Your task to perform on an android device: move a message to another label in the gmail app Image 0: 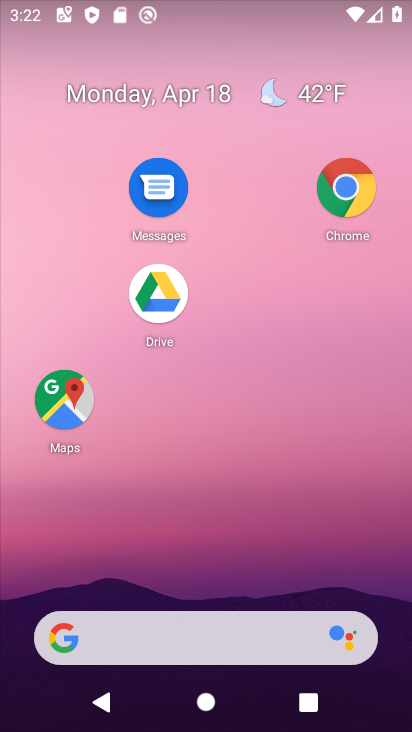
Step 0: drag from (210, 540) to (283, 112)
Your task to perform on an android device: move a message to another label in the gmail app Image 1: 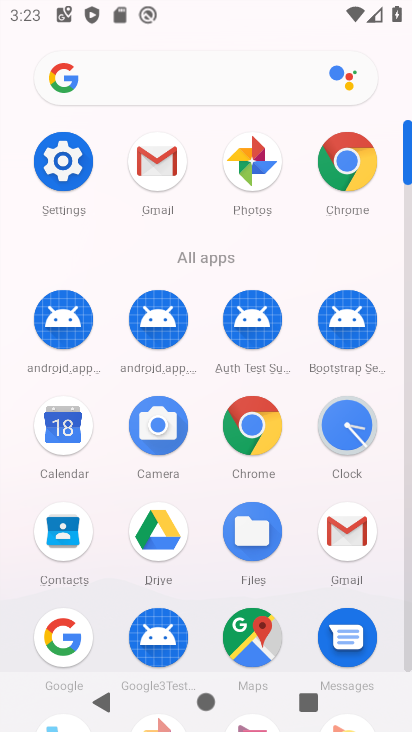
Step 1: drag from (294, 513) to (294, 405)
Your task to perform on an android device: move a message to another label in the gmail app Image 2: 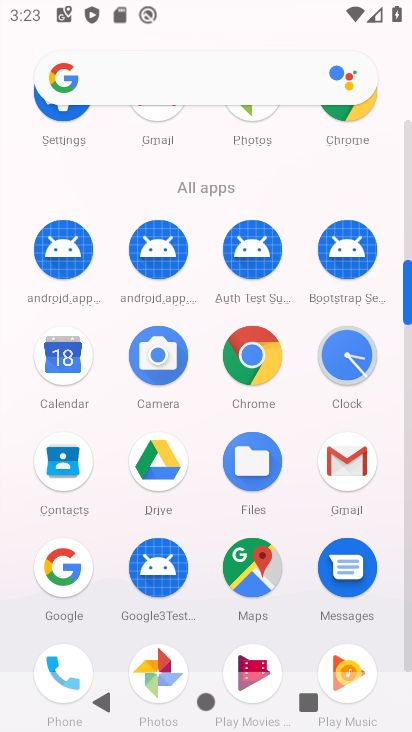
Step 2: click (349, 461)
Your task to perform on an android device: move a message to another label in the gmail app Image 3: 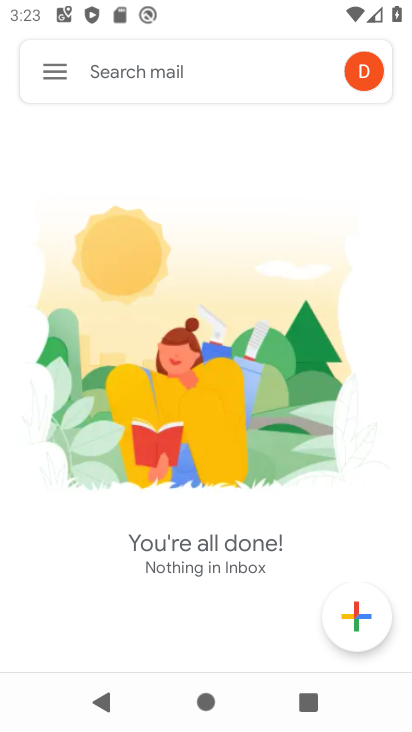
Step 3: click (47, 69)
Your task to perform on an android device: move a message to another label in the gmail app Image 4: 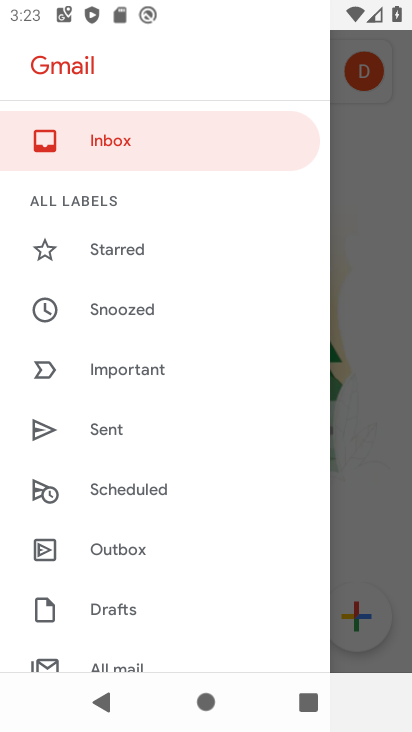
Step 4: drag from (164, 492) to (175, 371)
Your task to perform on an android device: move a message to another label in the gmail app Image 5: 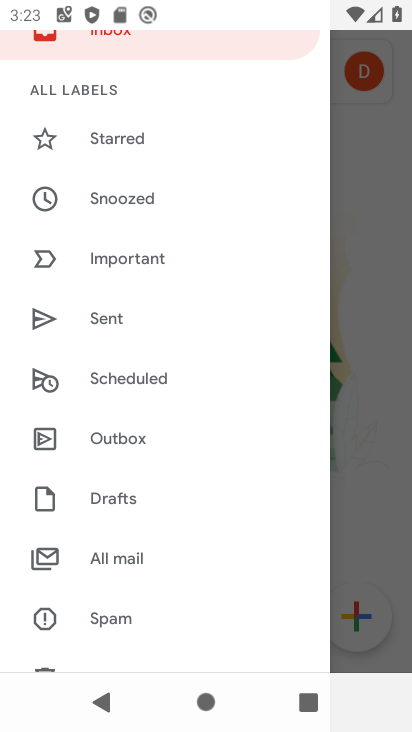
Step 5: drag from (178, 472) to (170, 402)
Your task to perform on an android device: move a message to another label in the gmail app Image 6: 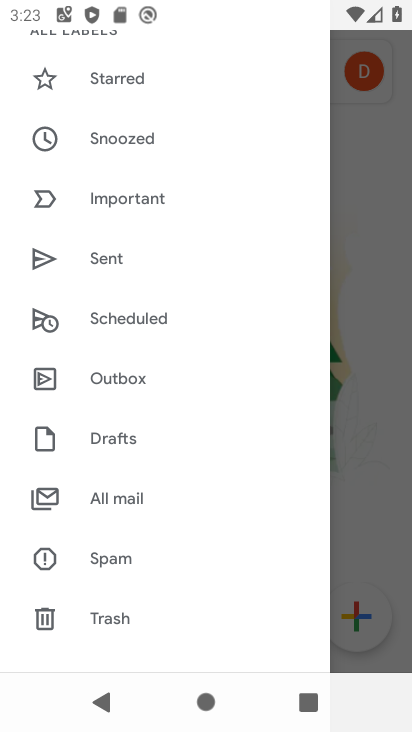
Step 6: click (112, 494)
Your task to perform on an android device: move a message to another label in the gmail app Image 7: 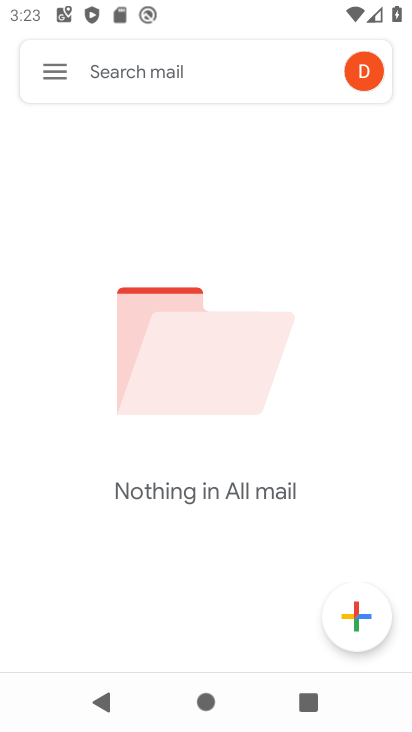
Step 7: click (68, 74)
Your task to perform on an android device: move a message to another label in the gmail app Image 8: 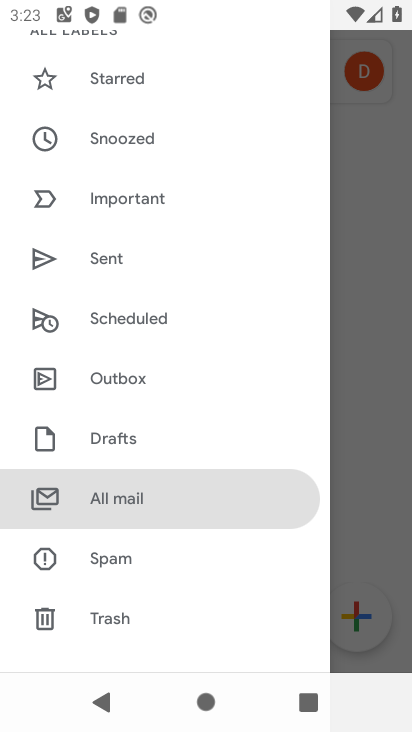
Step 8: click (132, 375)
Your task to perform on an android device: move a message to another label in the gmail app Image 9: 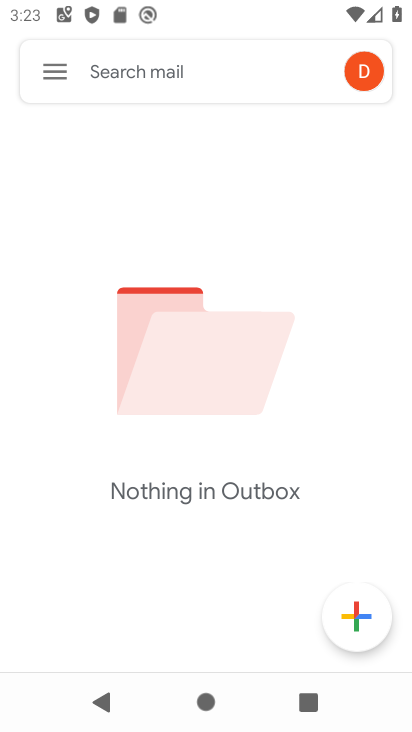
Step 9: task complete